Your task to perform on an android device: delete location history Image 0: 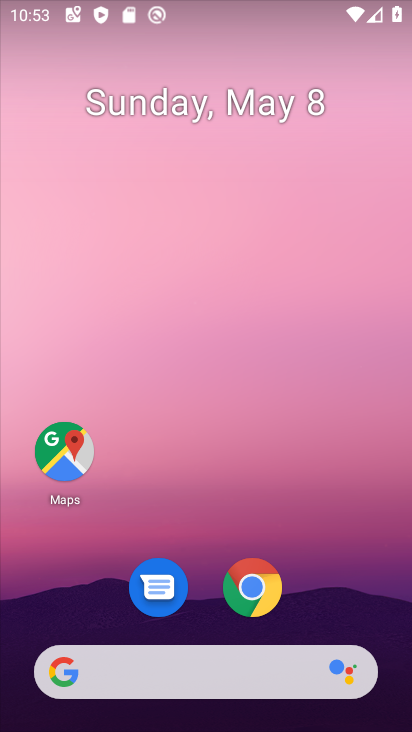
Step 0: drag from (325, 519) to (215, 19)
Your task to perform on an android device: delete location history Image 1: 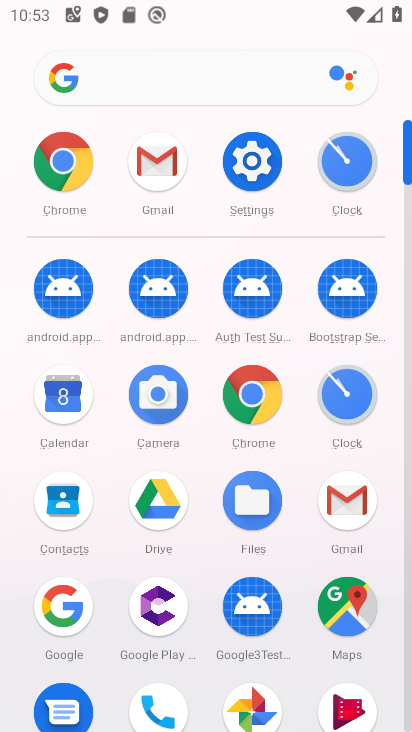
Step 1: click (344, 596)
Your task to perform on an android device: delete location history Image 2: 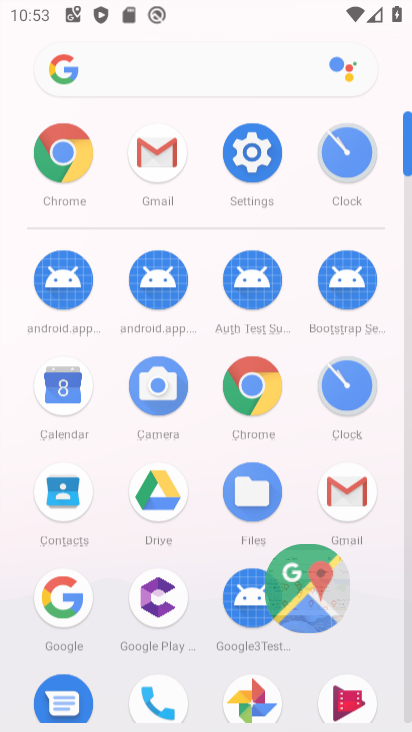
Step 2: click (340, 600)
Your task to perform on an android device: delete location history Image 3: 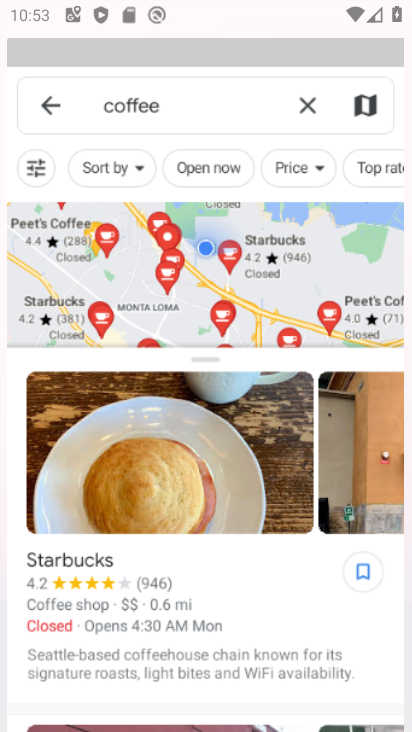
Step 3: click (341, 597)
Your task to perform on an android device: delete location history Image 4: 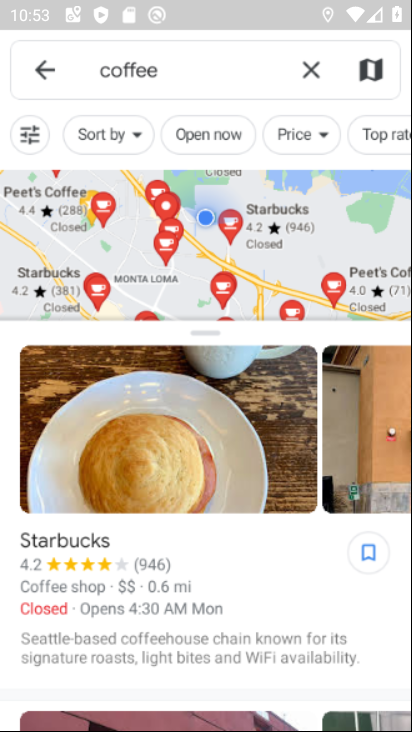
Step 4: click (39, 69)
Your task to perform on an android device: delete location history Image 5: 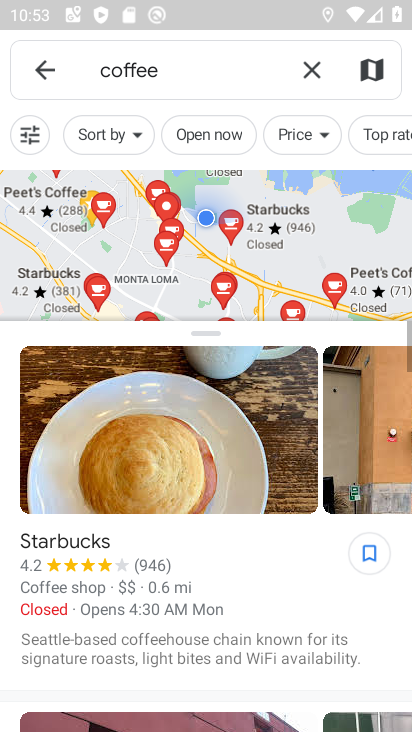
Step 5: click (39, 72)
Your task to perform on an android device: delete location history Image 6: 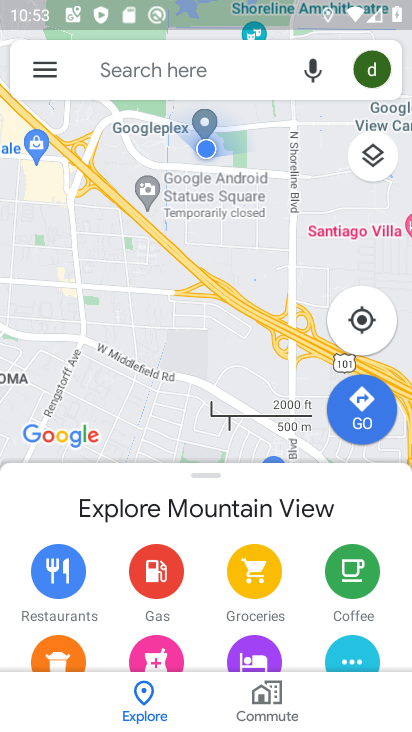
Step 6: click (44, 68)
Your task to perform on an android device: delete location history Image 7: 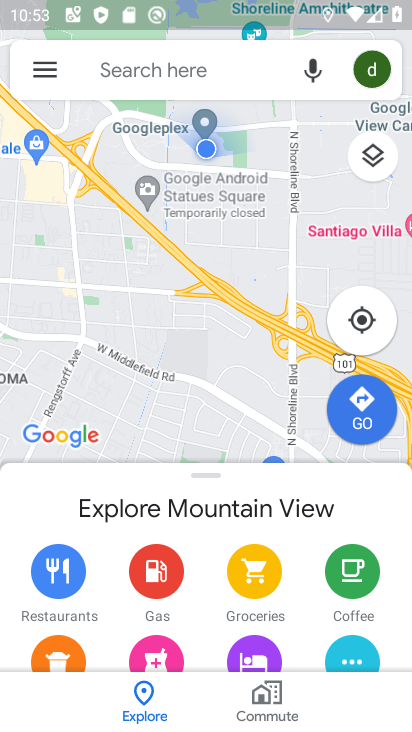
Step 7: click (47, 70)
Your task to perform on an android device: delete location history Image 8: 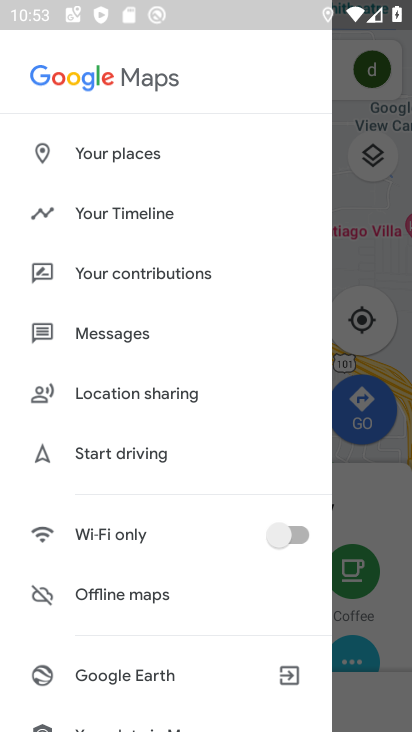
Step 8: click (142, 213)
Your task to perform on an android device: delete location history Image 9: 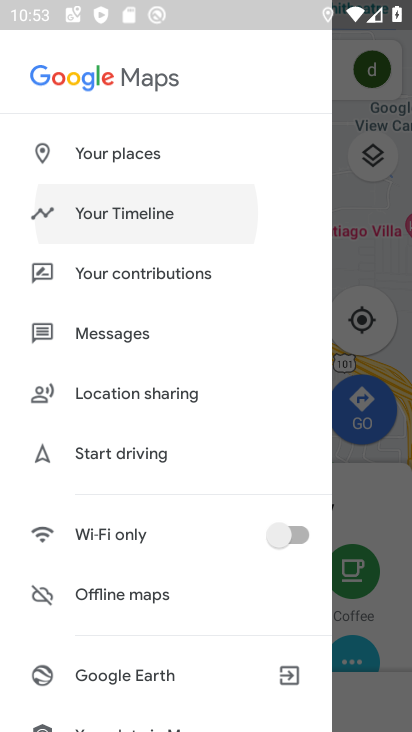
Step 9: click (142, 213)
Your task to perform on an android device: delete location history Image 10: 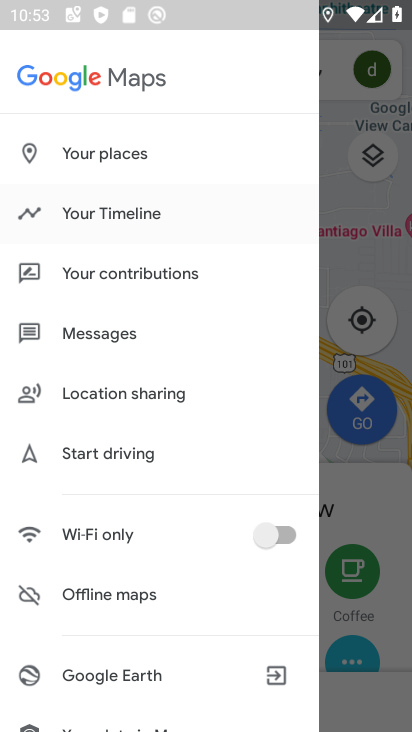
Step 10: click (139, 213)
Your task to perform on an android device: delete location history Image 11: 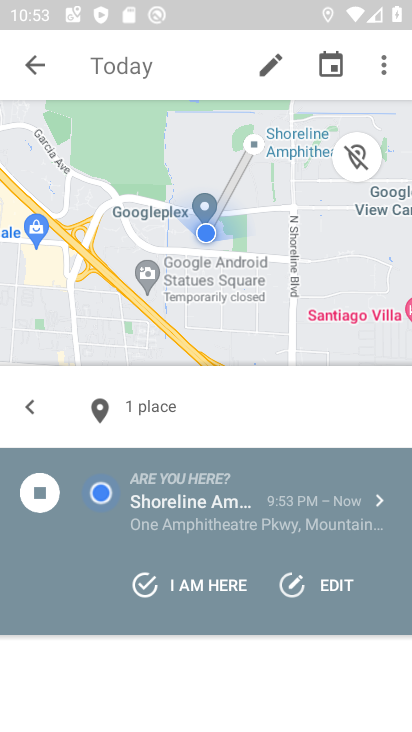
Step 11: click (378, 67)
Your task to perform on an android device: delete location history Image 12: 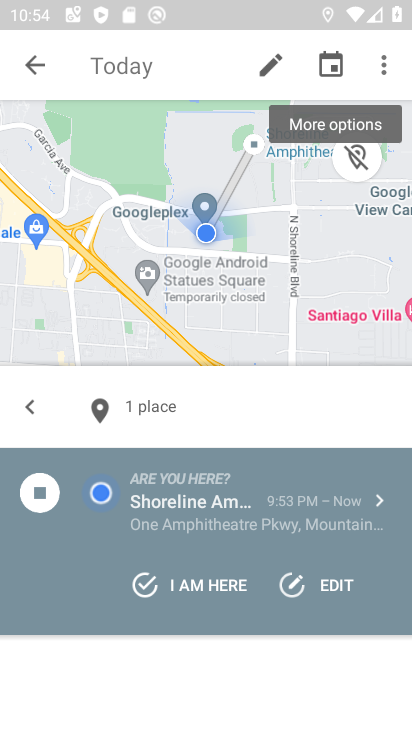
Step 12: click (377, 67)
Your task to perform on an android device: delete location history Image 13: 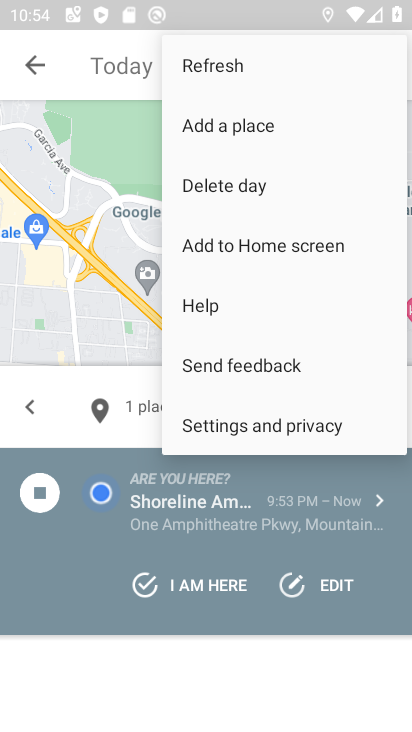
Step 13: click (248, 416)
Your task to perform on an android device: delete location history Image 14: 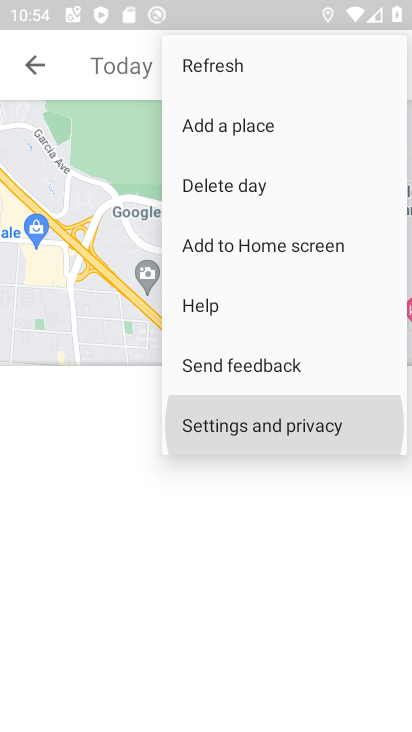
Step 14: click (248, 416)
Your task to perform on an android device: delete location history Image 15: 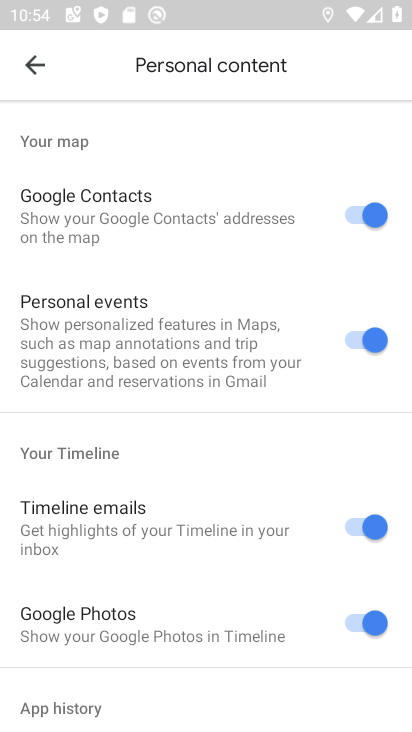
Step 15: drag from (146, 566) to (83, 218)
Your task to perform on an android device: delete location history Image 16: 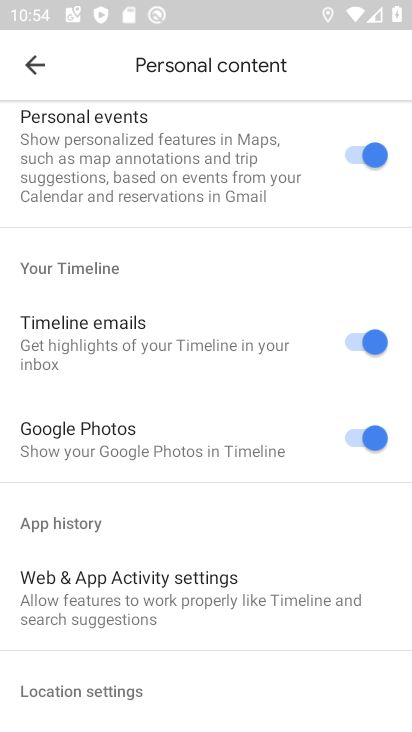
Step 16: drag from (188, 545) to (194, 87)
Your task to perform on an android device: delete location history Image 17: 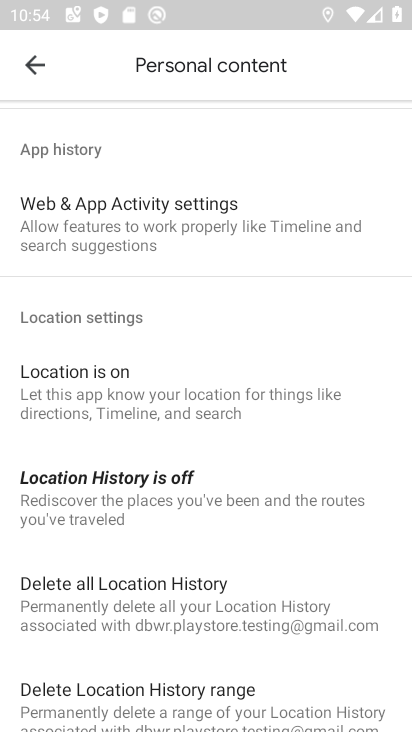
Step 17: drag from (211, 518) to (108, 116)
Your task to perform on an android device: delete location history Image 18: 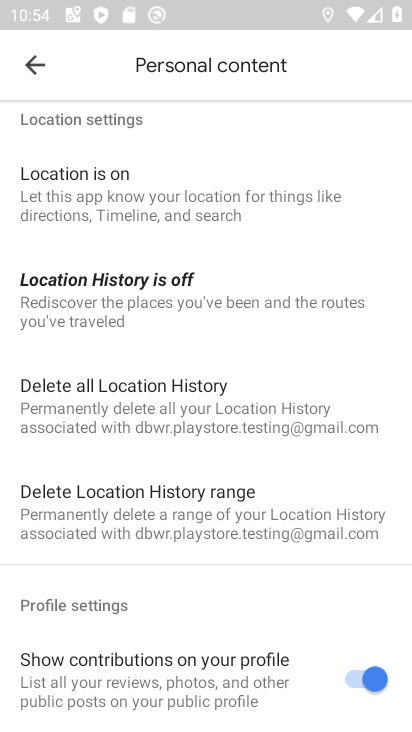
Step 18: click (120, 409)
Your task to perform on an android device: delete location history Image 19: 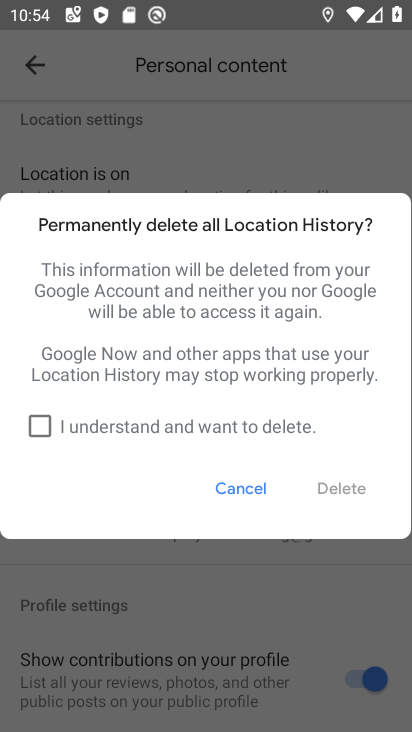
Step 19: click (53, 425)
Your task to perform on an android device: delete location history Image 20: 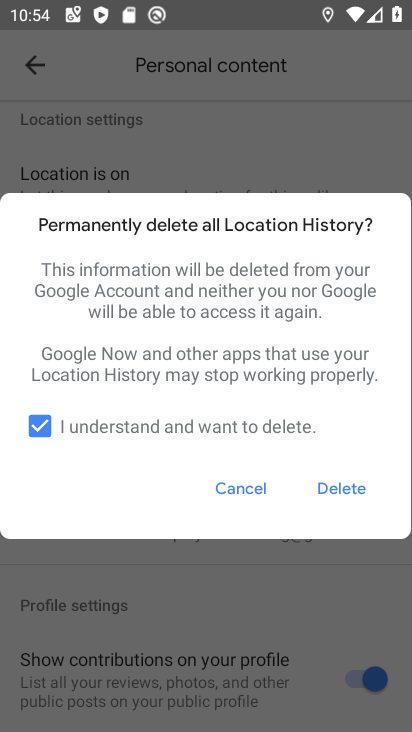
Step 20: click (339, 486)
Your task to perform on an android device: delete location history Image 21: 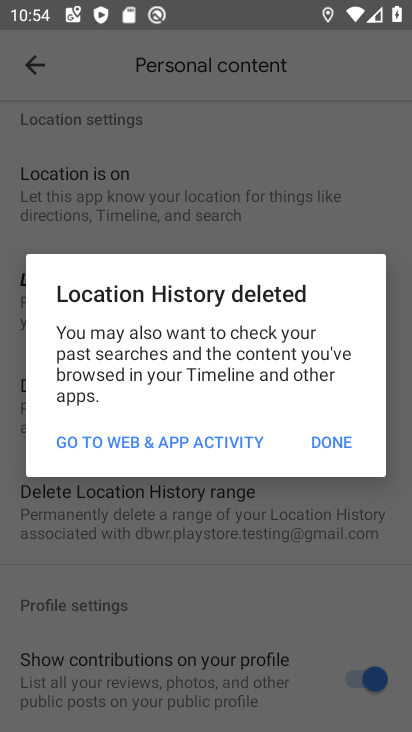
Step 21: click (321, 439)
Your task to perform on an android device: delete location history Image 22: 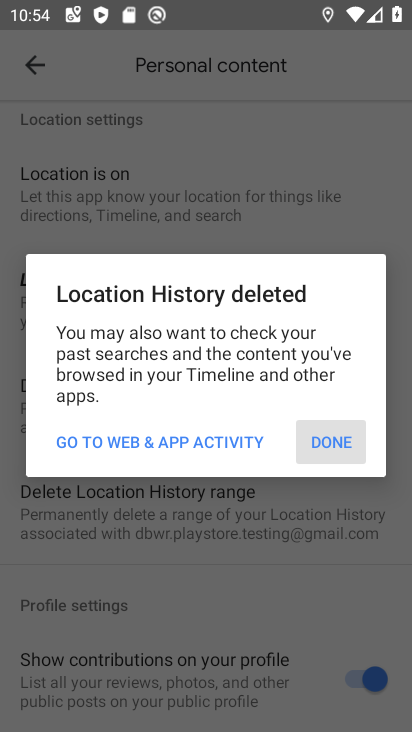
Step 22: click (322, 439)
Your task to perform on an android device: delete location history Image 23: 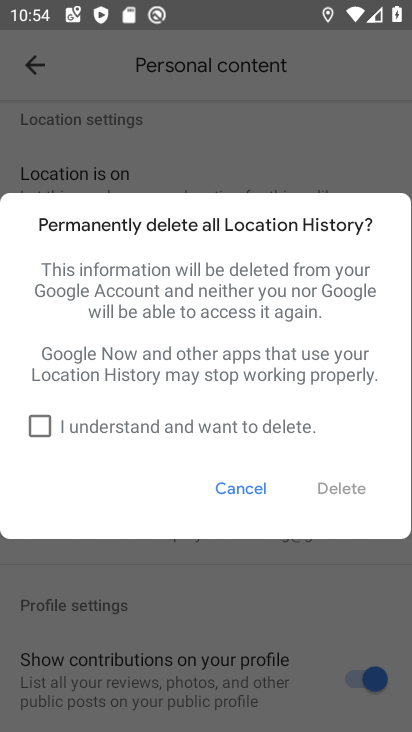
Step 23: click (323, 440)
Your task to perform on an android device: delete location history Image 24: 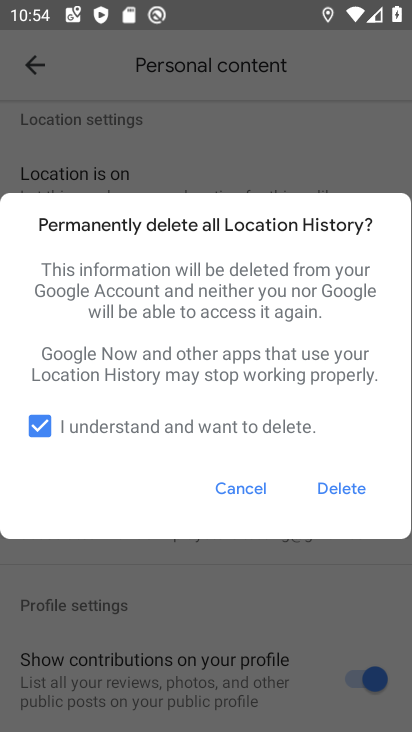
Step 24: click (337, 488)
Your task to perform on an android device: delete location history Image 25: 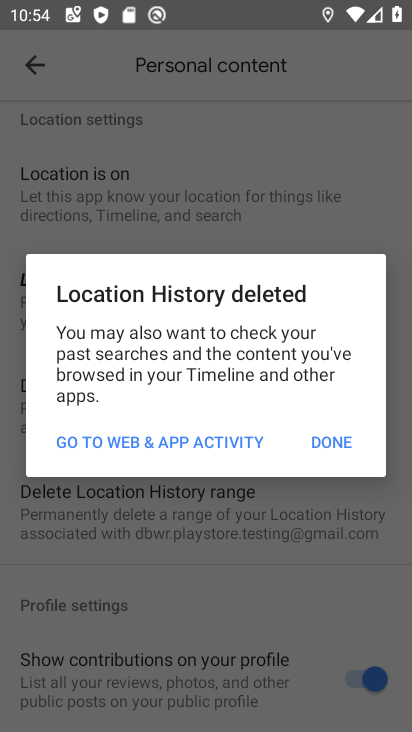
Step 25: task complete